Your task to perform on an android device: check out phone information Image 0: 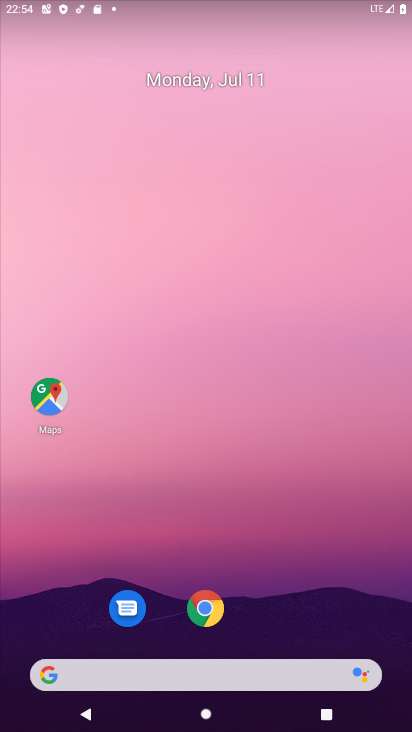
Step 0: drag from (37, 701) to (236, 34)
Your task to perform on an android device: check out phone information Image 1: 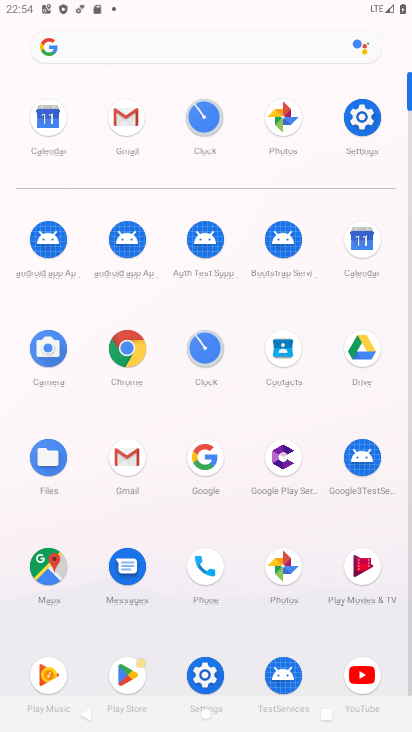
Step 1: click (218, 568)
Your task to perform on an android device: check out phone information Image 2: 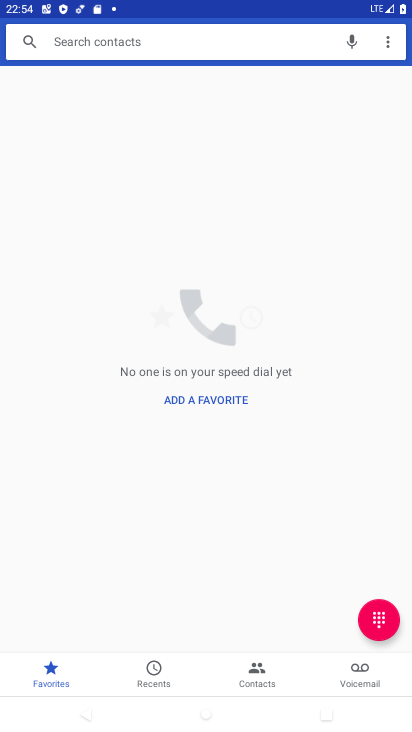
Step 2: click (259, 675)
Your task to perform on an android device: check out phone information Image 3: 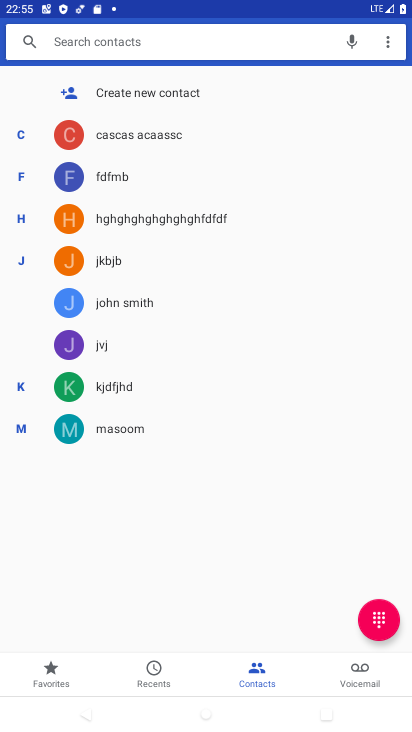
Step 3: task complete